Your task to perform on an android device: open app "Firefox Browser" (install if not already installed) Image 0: 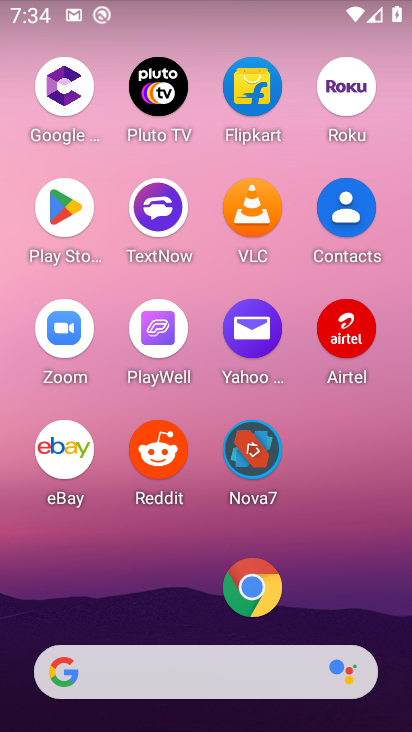
Step 0: click (244, 593)
Your task to perform on an android device: open app "Firefox Browser" (install if not already installed) Image 1: 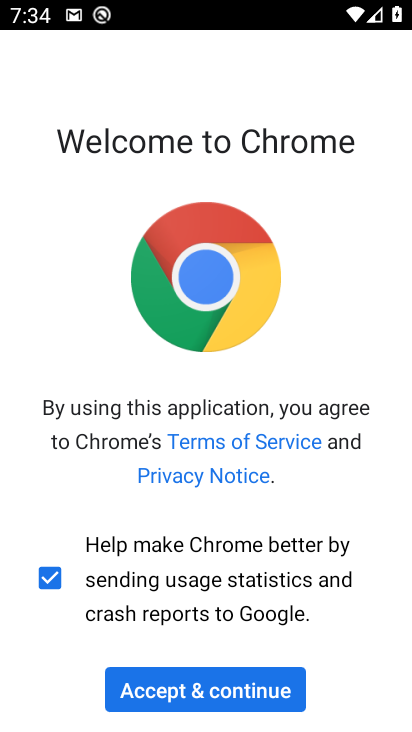
Step 1: click (209, 696)
Your task to perform on an android device: open app "Firefox Browser" (install if not already installed) Image 2: 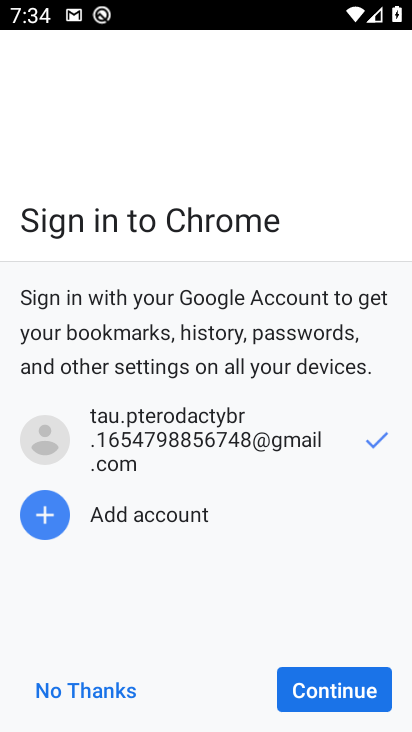
Step 2: click (313, 698)
Your task to perform on an android device: open app "Firefox Browser" (install if not already installed) Image 3: 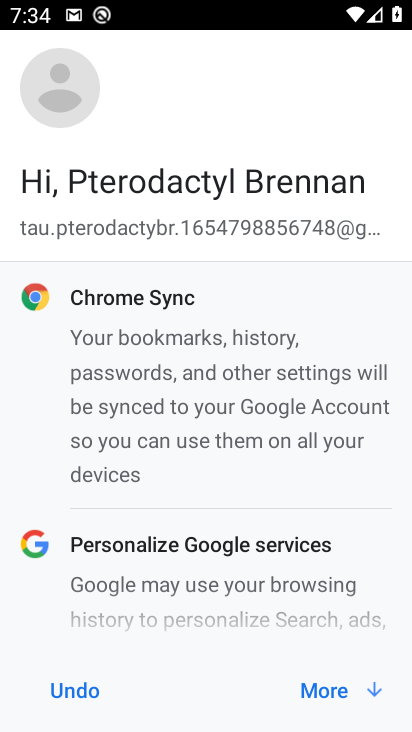
Step 3: click (327, 690)
Your task to perform on an android device: open app "Firefox Browser" (install if not already installed) Image 4: 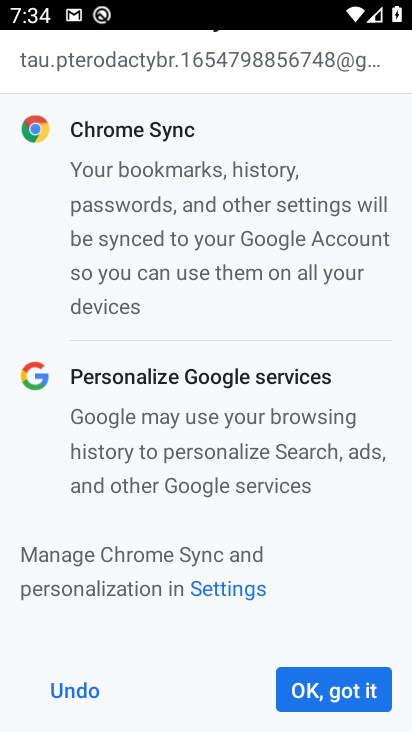
Step 4: click (363, 690)
Your task to perform on an android device: open app "Firefox Browser" (install if not already installed) Image 5: 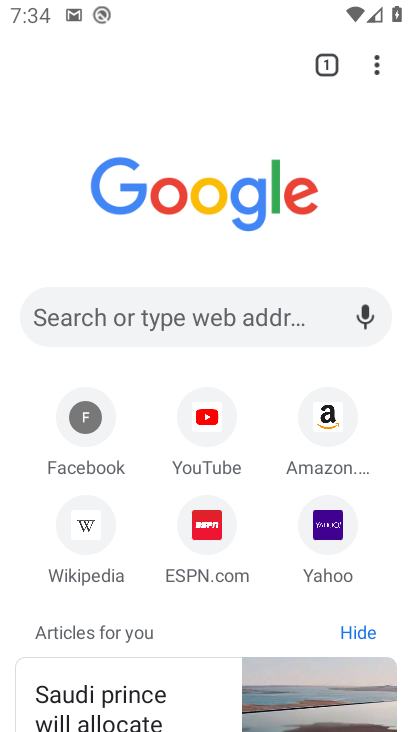
Step 5: press home button
Your task to perform on an android device: open app "Firefox Browser" (install if not already installed) Image 6: 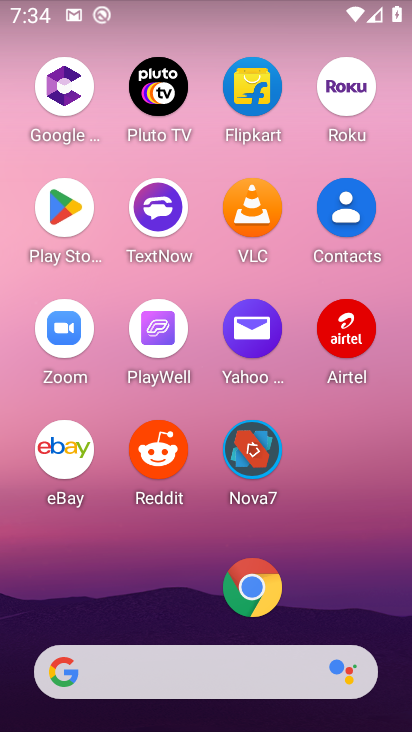
Step 6: click (65, 208)
Your task to perform on an android device: open app "Firefox Browser" (install if not already installed) Image 7: 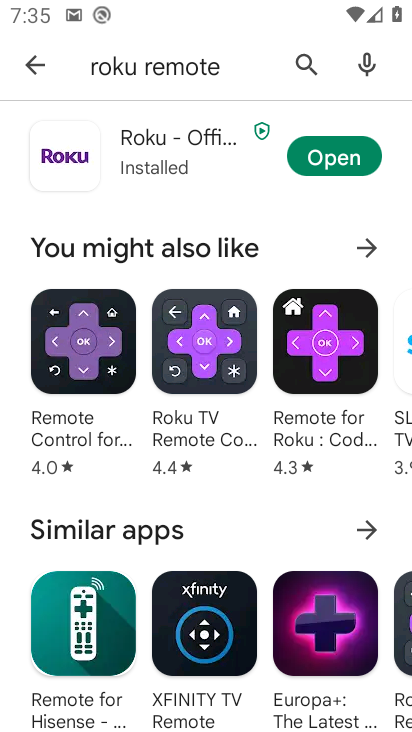
Step 7: click (306, 66)
Your task to perform on an android device: open app "Firefox Browser" (install if not already installed) Image 8: 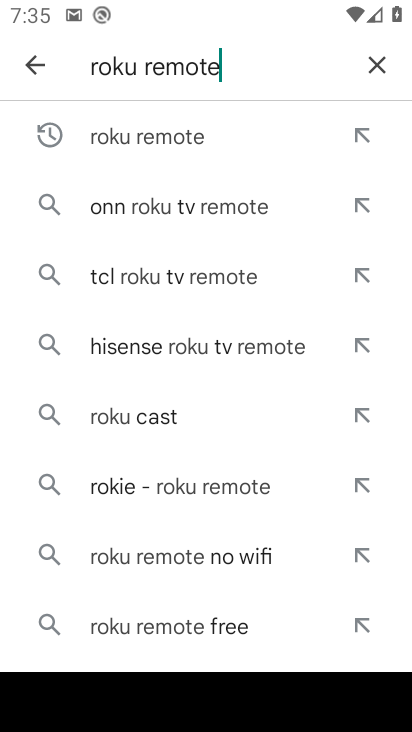
Step 8: click (382, 68)
Your task to perform on an android device: open app "Firefox Browser" (install if not already installed) Image 9: 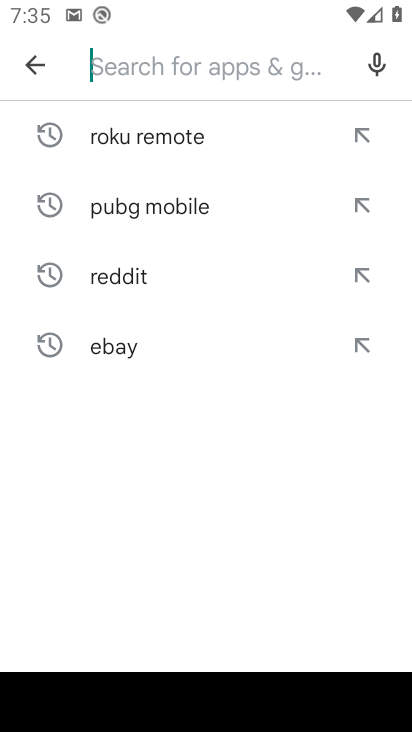
Step 9: type "firefox"
Your task to perform on an android device: open app "Firefox Browser" (install if not already installed) Image 10: 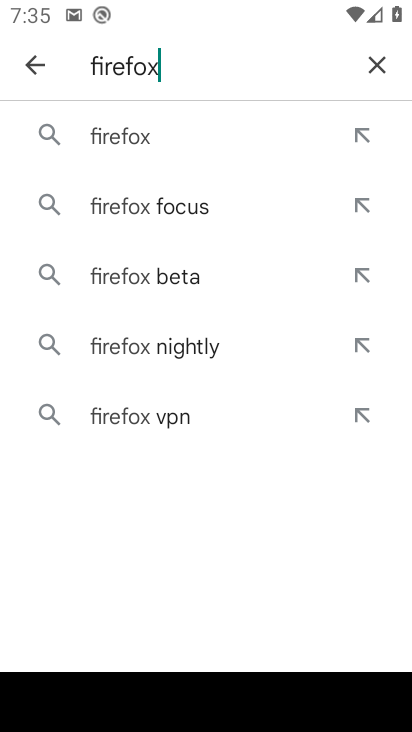
Step 10: click (176, 135)
Your task to perform on an android device: open app "Firefox Browser" (install if not already installed) Image 11: 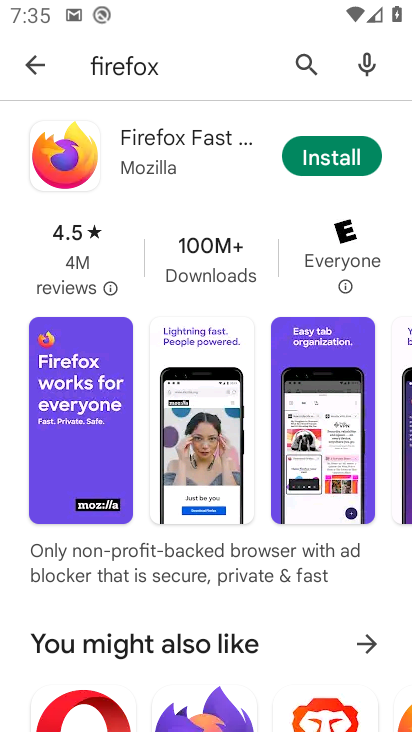
Step 11: click (304, 149)
Your task to perform on an android device: open app "Firefox Browser" (install if not already installed) Image 12: 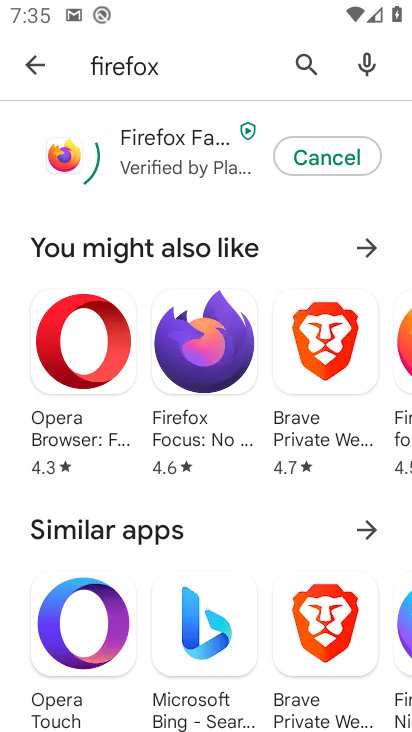
Step 12: task complete